Your task to perform on an android device: Open calendar and show me the second week of next month Image 0: 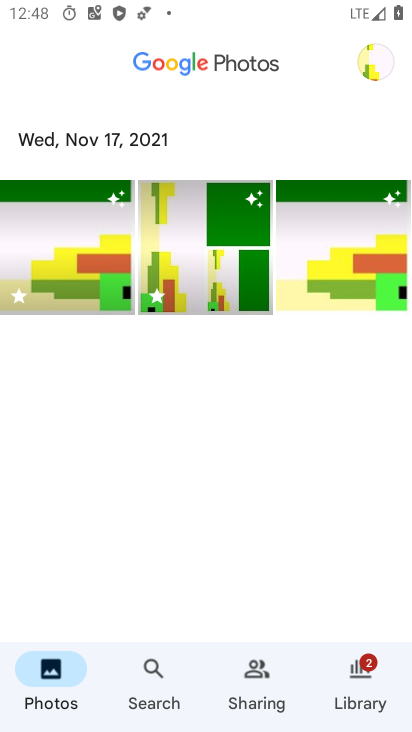
Step 0: press home button
Your task to perform on an android device: Open calendar and show me the second week of next month Image 1: 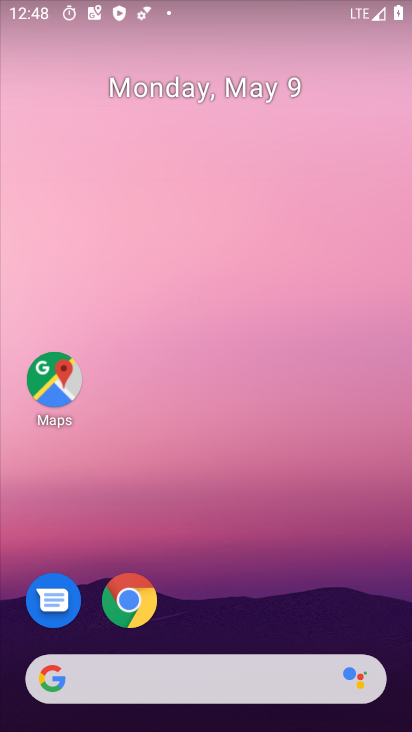
Step 1: drag from (235, 584) to (242, 140)
Your task to perform on an android device: Open calendar and show me the second week of next month Image 2: 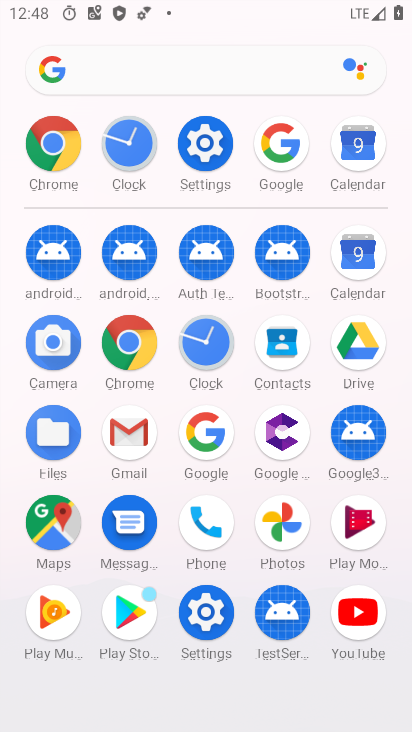
Step 2: click (355, 265)
Your task to perform on an android device: Open calendar and show me the second week of next month Image 3: 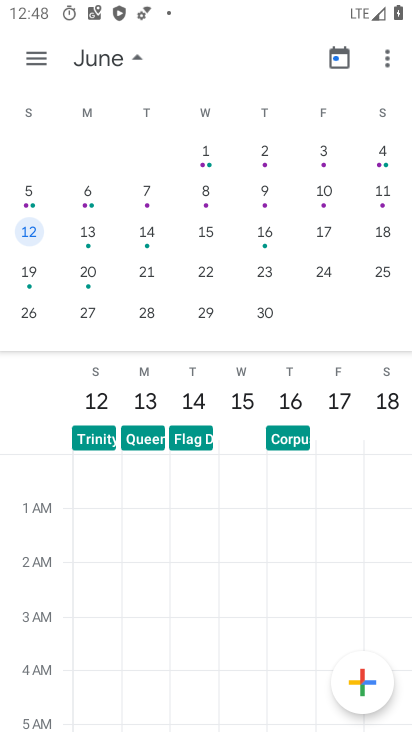
Step 3: click (28, 199)
Your task to perform on an android device: Open calendar and show me the second week of next month Image 4: 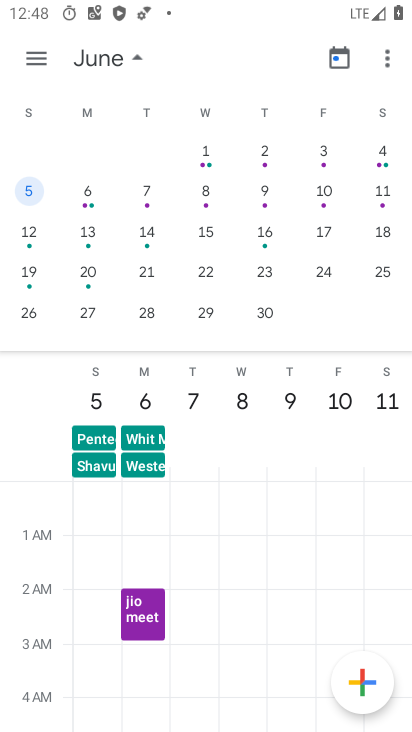
Step 4: task complete